Your task to perform on an android device: What's the weather today? Image 0: 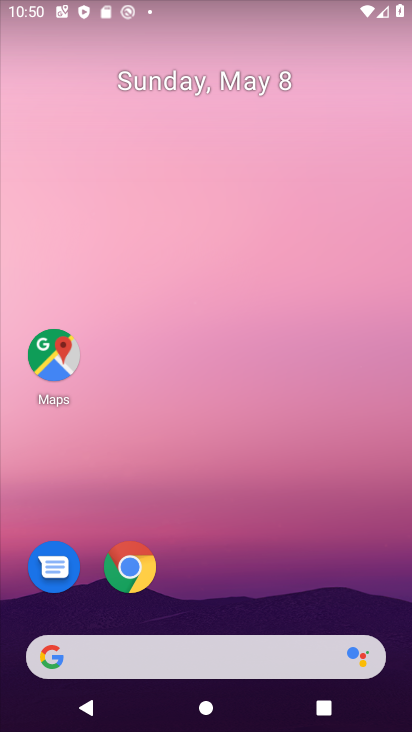
Step 0: drag from (16, 266) to (404, 260)
Your task to perform on an android device: What's the weather today? Image 1: 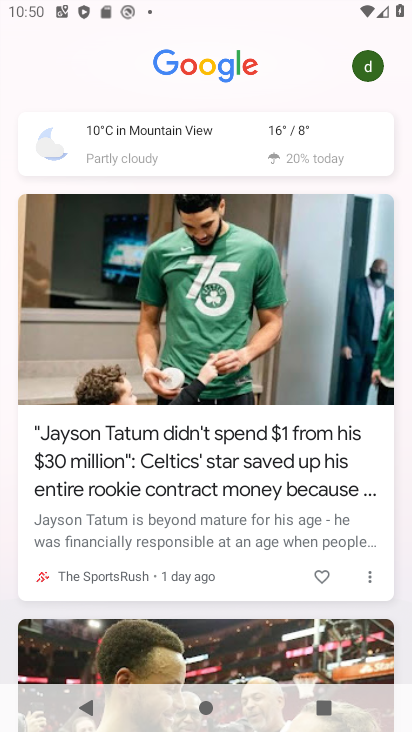
Step 1: click (276, 129)
Your task to perform on an android device: What's the weather today? Image 2: 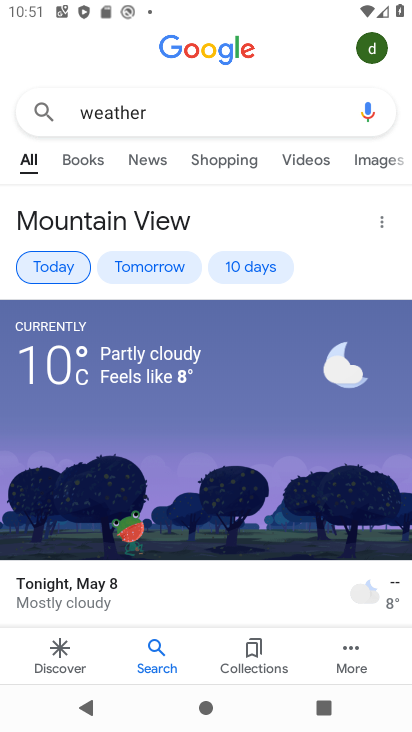
Step 2: task complete